Your task to perform on an android device: turn on airplane mode Image 0: 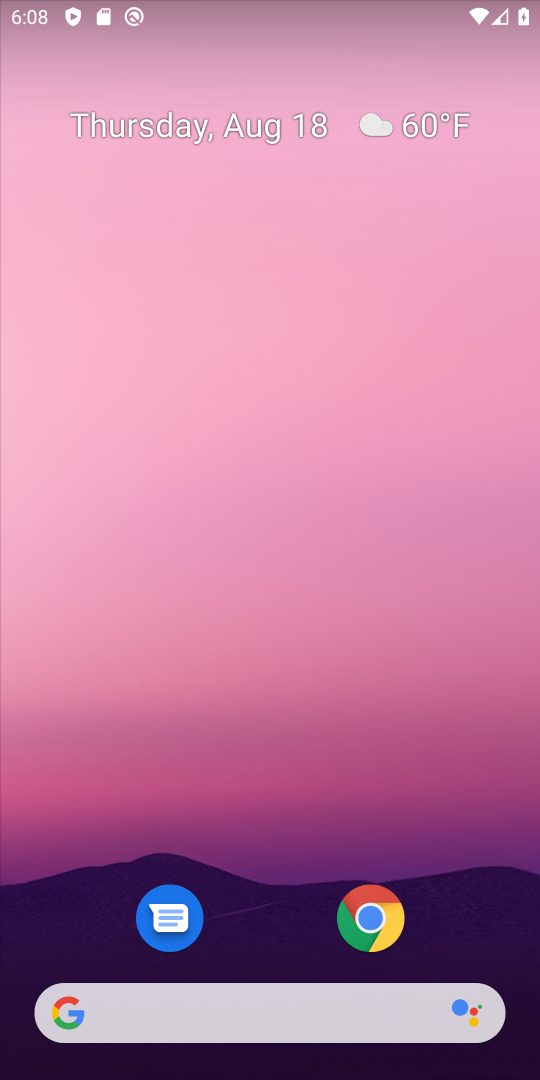
Step 0: press home button
Your task to perform on an android device: turn on airplane mode Image 1: 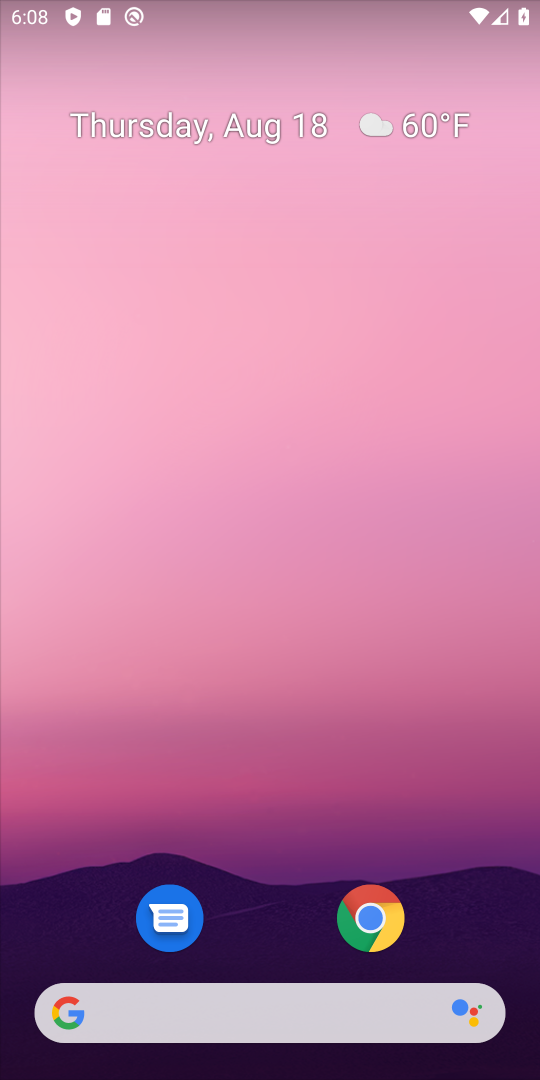
Step 1: drag from (252, 101) to (140, 962)
Your task to perform on an android device: turn on airplane mode Image 2: 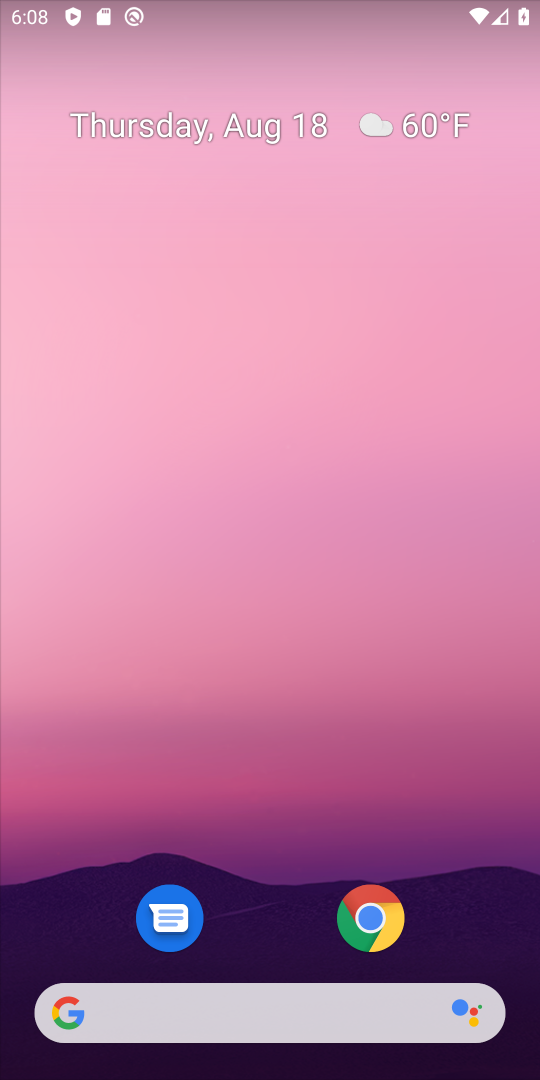
Step 2: drag from (286, 5) to (268, 1067)
Your task to perform on an android device: turn on airplane mode Image 3: 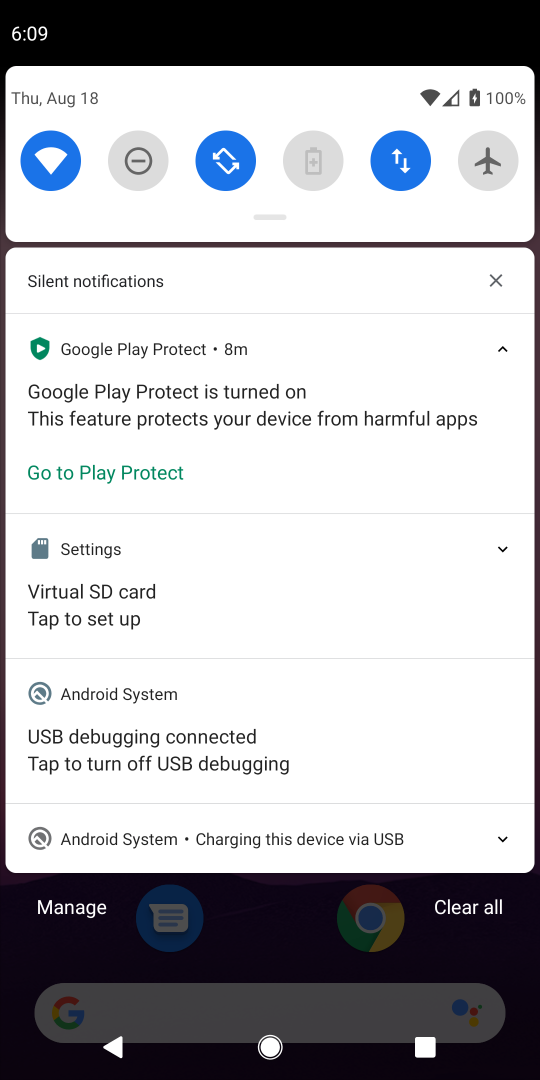
Step 3: click (475, 167)
Your task to perform on an android device: turn on airplane mode Image 4: 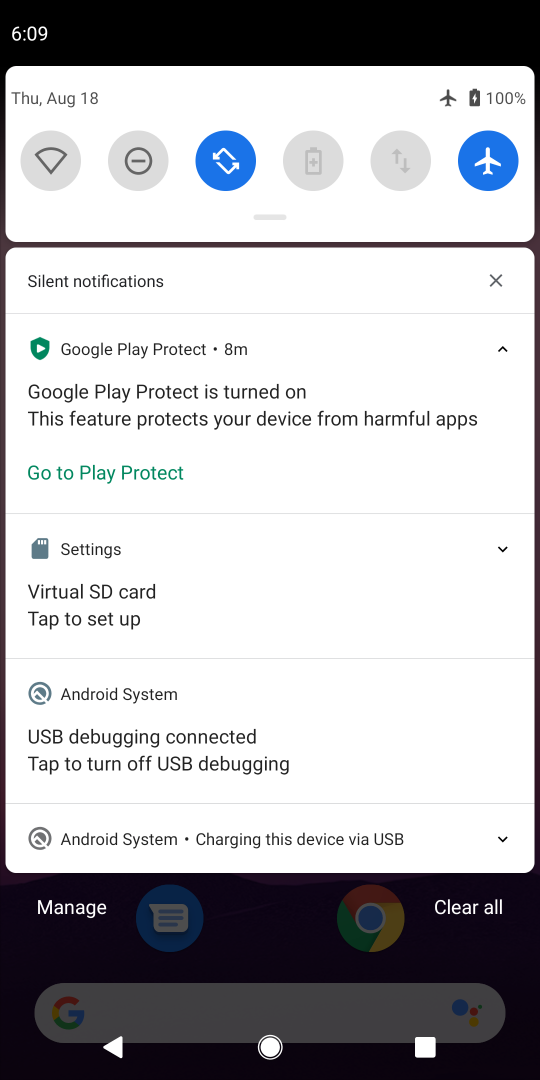
Step 4: task complete